Your task to perform on an android device: change notification settings in the gmail app Image 0: 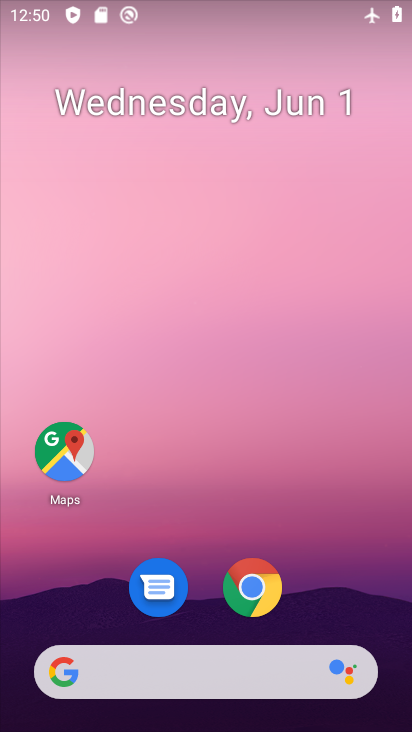
Step 0: drag from (270, 510) to (252, 157)
Your task to perform on an android device: change notification settings in the gmail app Image 1: 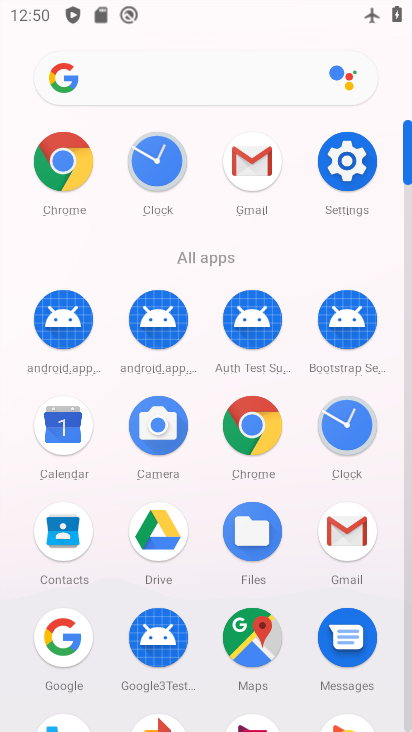
Step 1: click (248, 149)
Your task to perform on an android device: change notification settings in the gmail app Image 2: 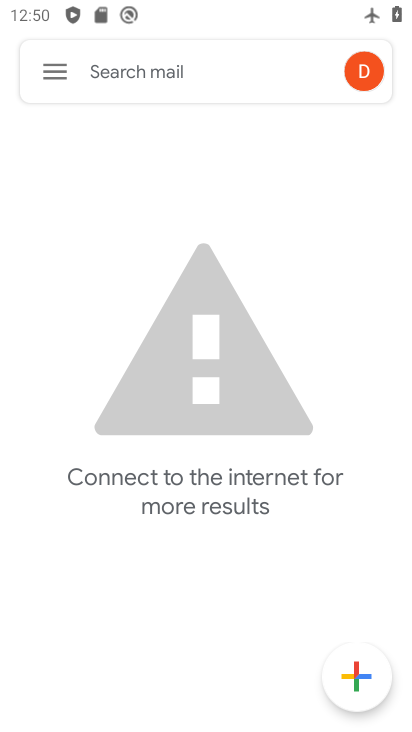
Step 2: click (55, 62)
Your task to perform on an android device: change notification settings in the gmail app Image 3: 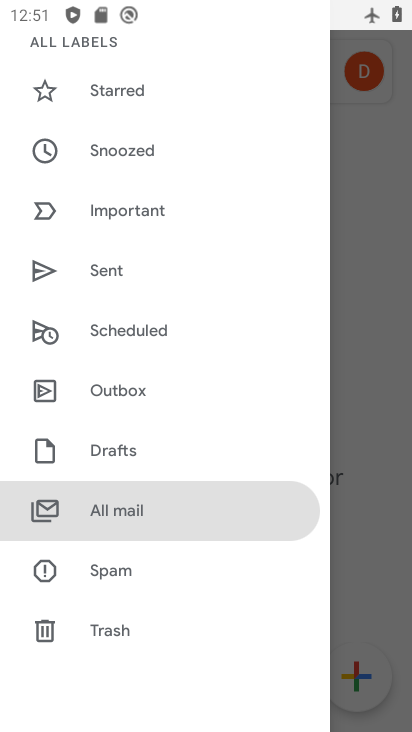
Step 3: drag from (158, 573) to (180, 206)
Your task to perform on an android device: change notification settings in the gmail app Image 4: 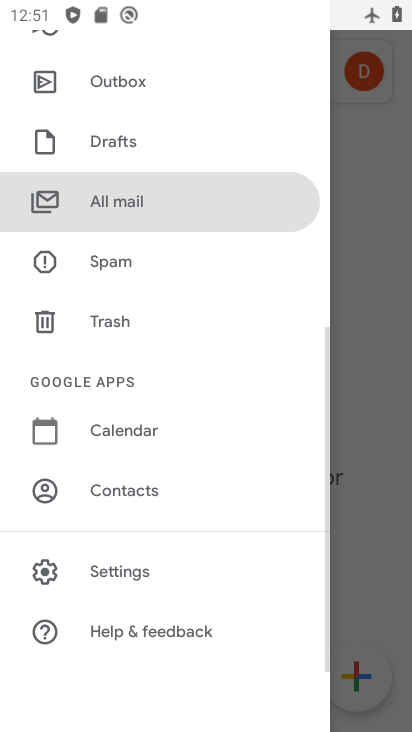
Step 4: click (121, 572)
Your task to perform on an android device: change notification settings in the gmail app Image 5: 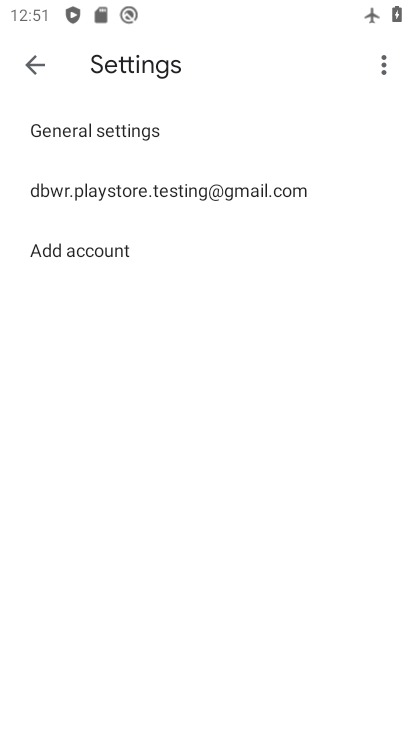
Step 5: click (96, 128)
Your task to perform on an android device: change notification settings in the gmail app Image 6: 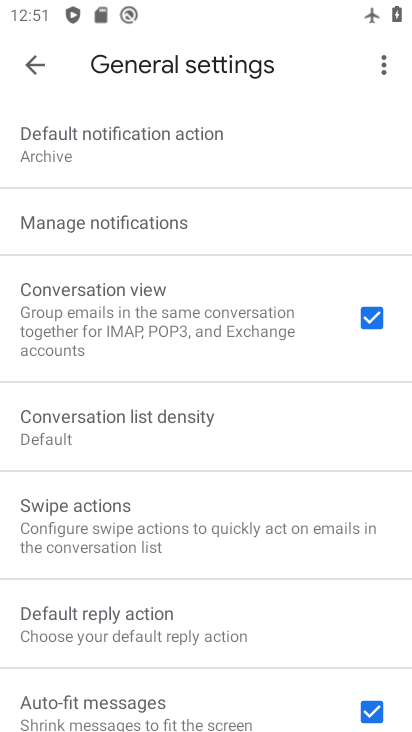
Step 6: click (130, 219)
Your task to perform on an android device: change notification settings in the gmail app Image 7: 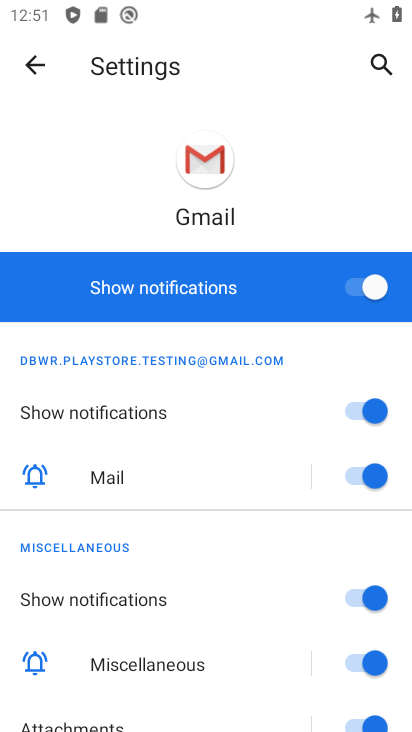
Step 7: click (373, 289)
Your task to perform on an android device: change notification settings in the gmail app Image 8: 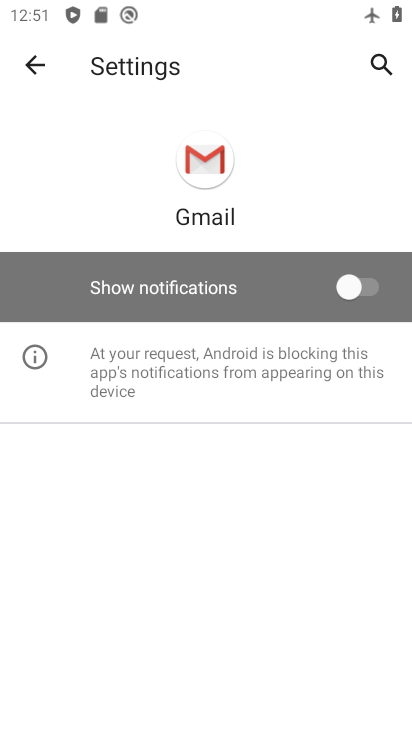
Step 8: task complete